Your task to perform on an android device: Open Reddit.com Image 0: 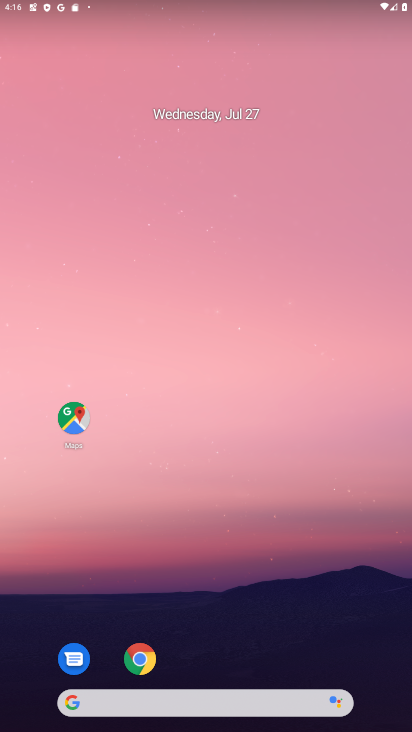
Step 0: click (142, 656)
Your task to perform on an android device: Open Reddit.com Image 1: 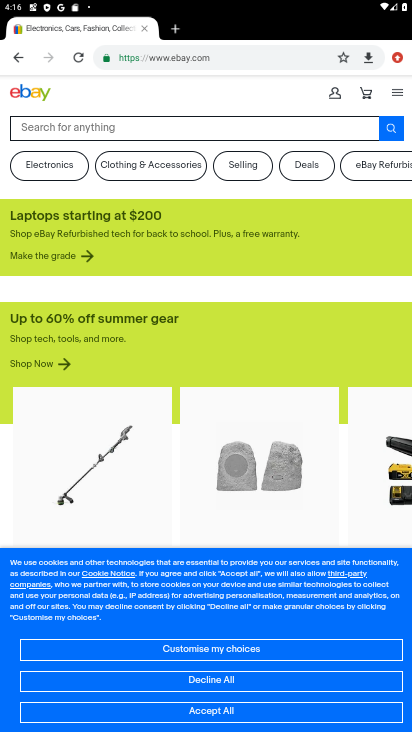
Step 1: click (214, 58)
Your task to perform on an android device: Open Reddit.com Image 2: 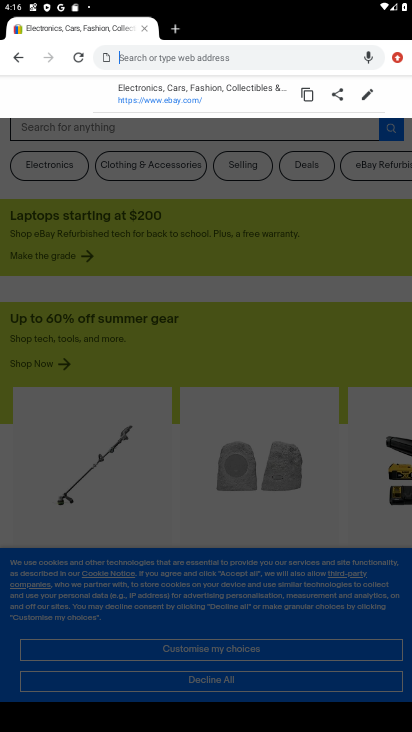
Step 2: type "Reddit.com"
Your task to perform on an android device: Open Reddit.com Image 3: 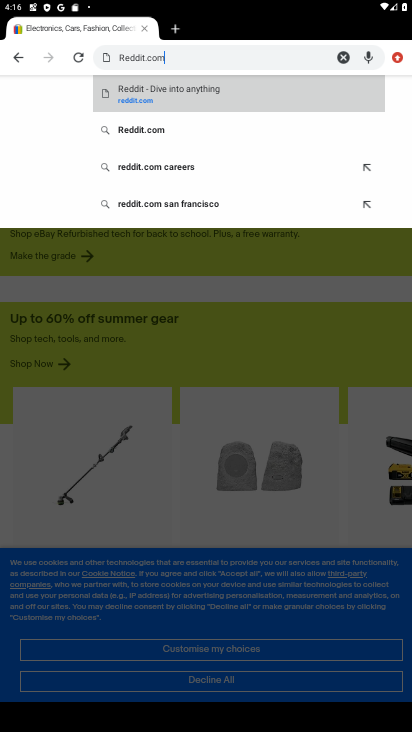
Step 3: click (175, 99)
Your task to perform on an android device: Open Reddit.com Image 4: 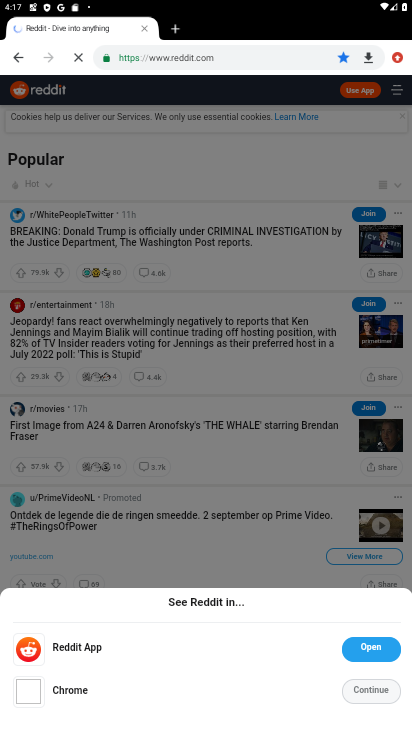
Step 4: task complete